Your task to perform on an android device: toggle location history Image 0: 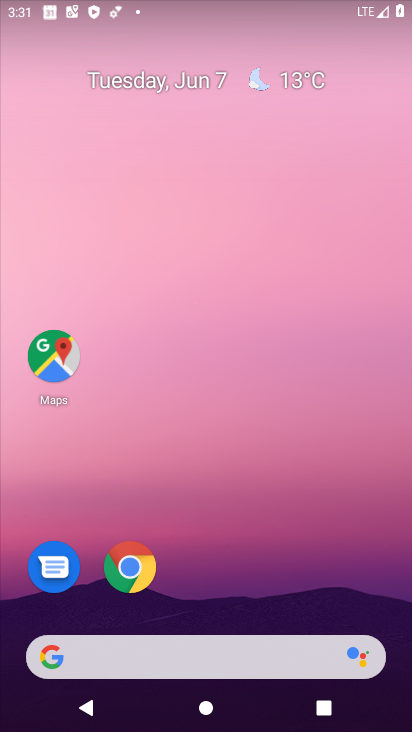
Step 0: drag from (203, 589) to (295, 41)
Your task to perform on an android device: toggle location history Image 1: 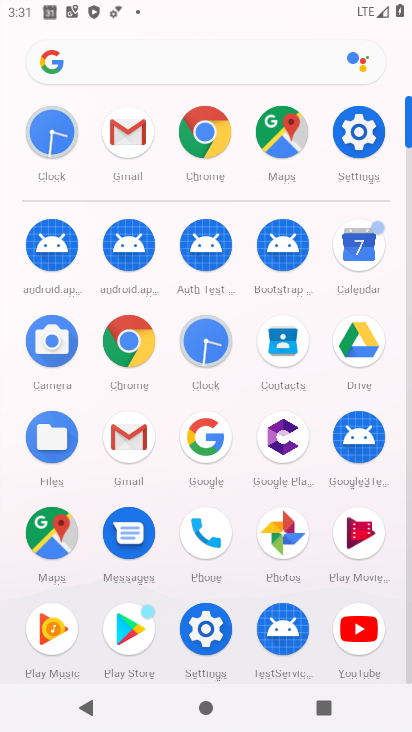
Step 1: click (353, 129)
Your task to perform on an android device: toggle location history Image 2: 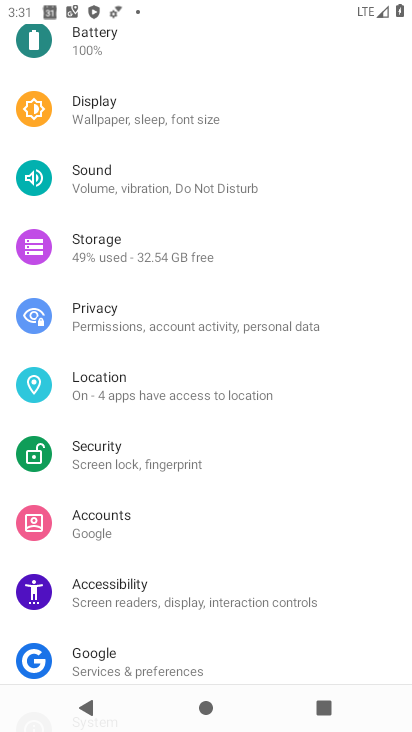
Step 2: click (114, 399)
Your task to perform on an android device: toggle location history Image 3: 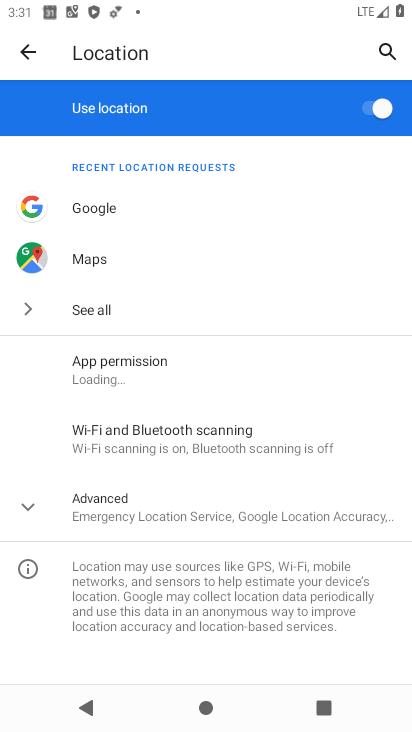
Step 3: click (137, 505)
Your task to perform on an android device: toggle location history Image 4: 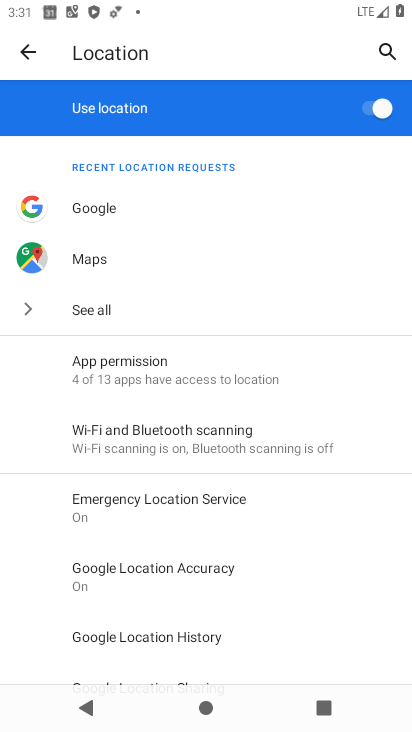
Step 4: click (157, 635)
Your task to perform on an android device: toggle location history Image 5: 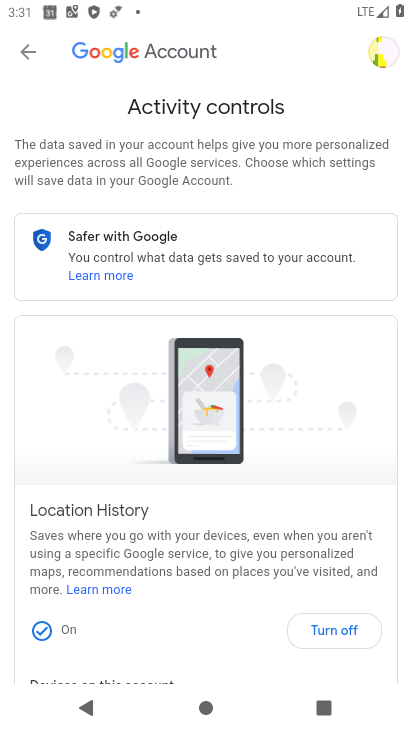
Step 5: click (331, 623)
Your task to perform on an android device: toggle location history Image 6: 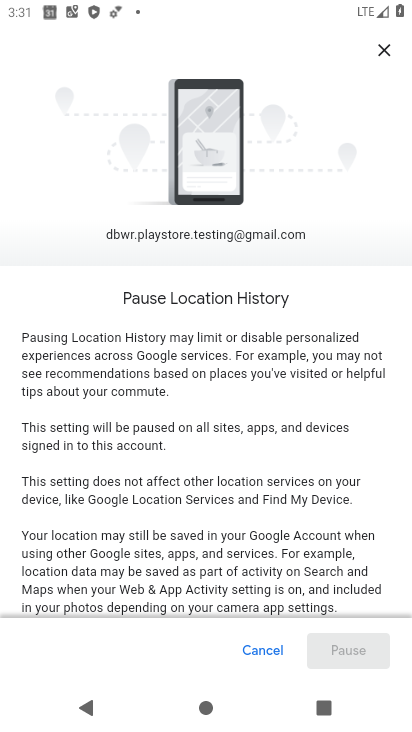
Step 6: drag from (148, 578) to (210, 48)
Your task to perform on an android device: toggle location history Image 7: 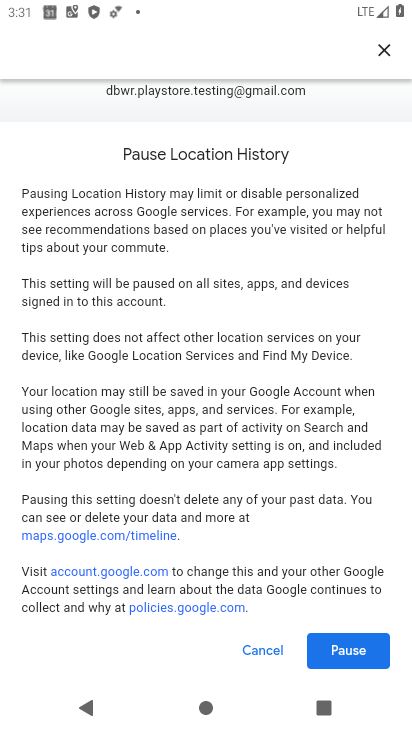
Step 7: click (355, 662)
Your task to perform on an android device: toggle location history Image 8: 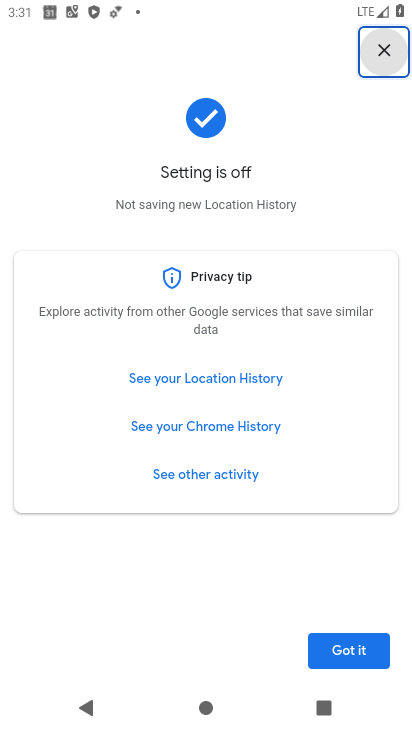
Step 8: click (336, 639)
Your task to perform on an android device: toggle location history Image 9: 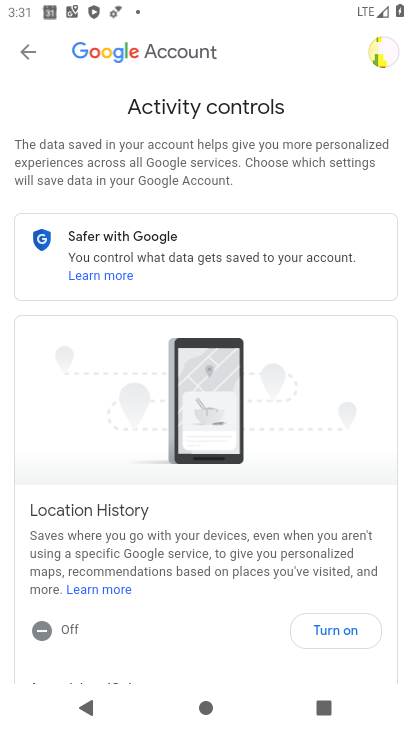
Step 9: task complete